Your task to perform on an android device: Go to Yahoo.com Image 0: 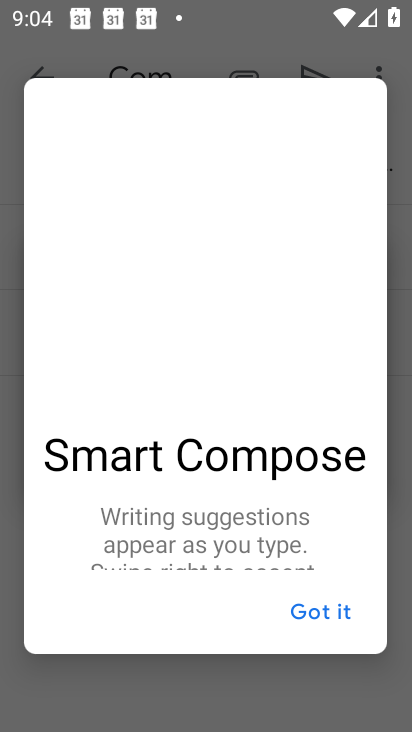
Step 0: press home button
Your task to perform on an android device: Go to Yahoo.com Image 1: 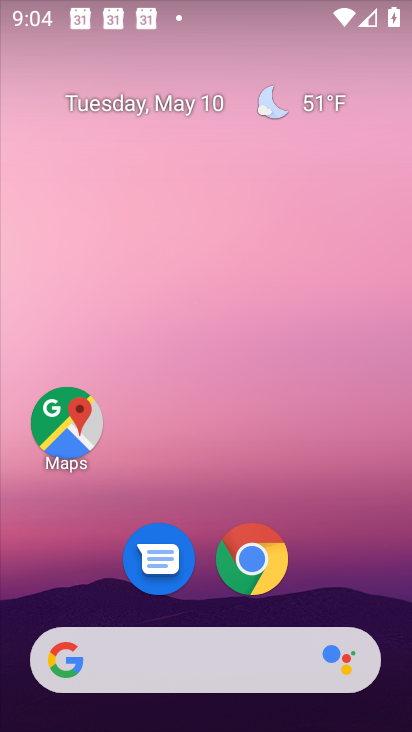
Step 1: click (252, 555)
Your task to perform on an android device: Go to Yahoo.com Image 2: 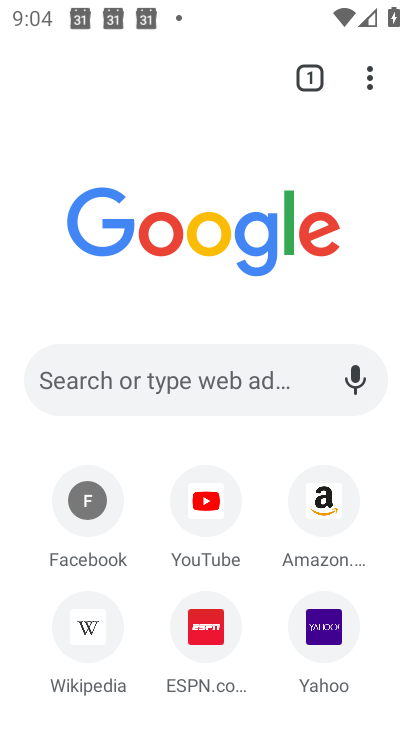
Step 2: click (143, 385)
Your task to perform on an android device: Go to Yahoo.com Image 3: 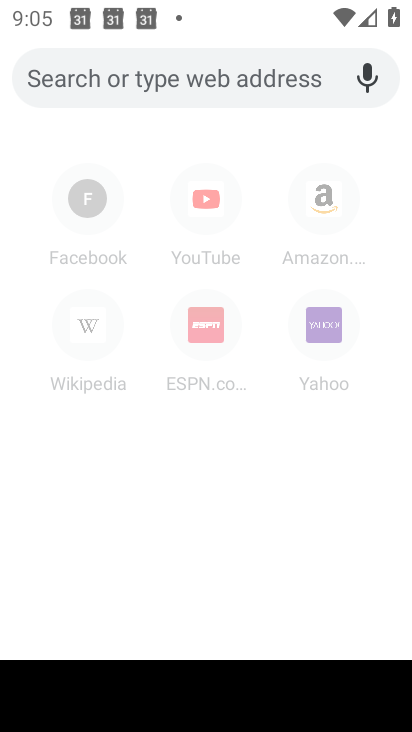
Step 3: type "Yahoo.com"
Your task to perform on an android device: Go to Yahoo.com Image 4: 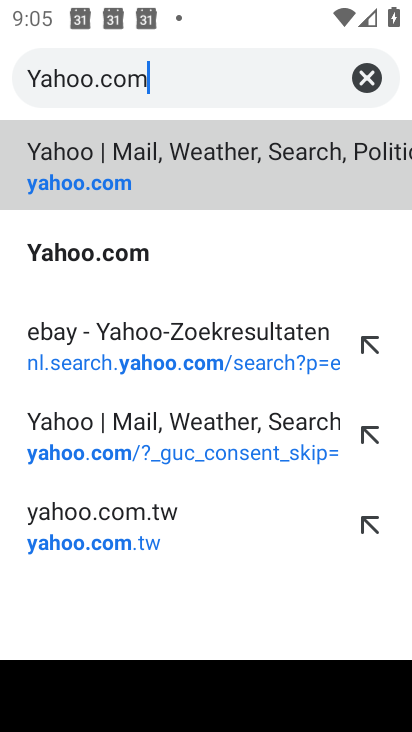
Step 4: click (121, 252)
Your task to perform on an android device: Go to Yahoo.com Image 5: 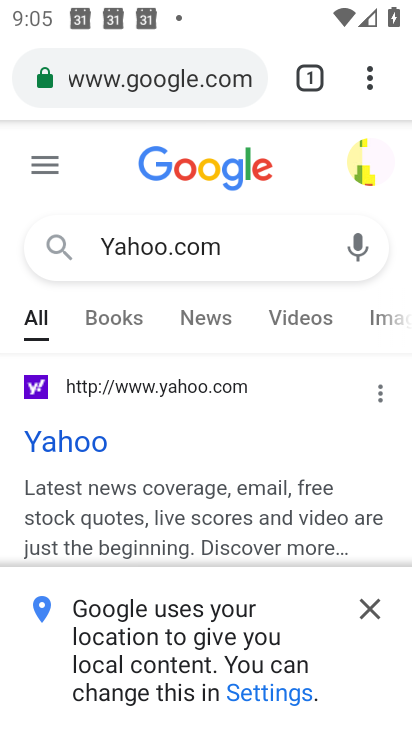
Step 5: click (68, 438)
Your task to perform on an android device: Go to Yahoo.com Image 6: 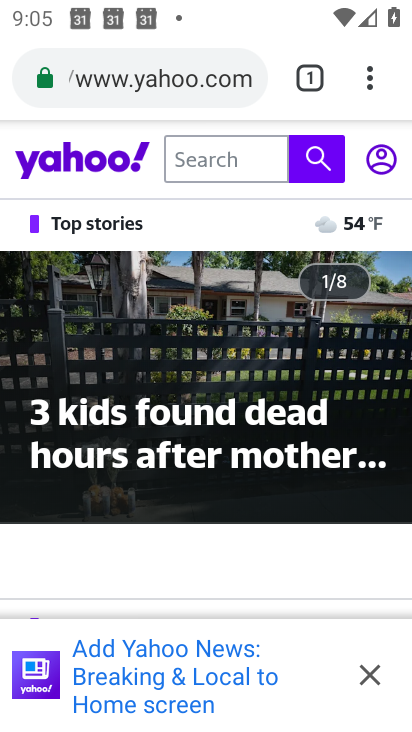
Step 6: task complete